Your task to perform on an android device: search for starred emails in the gmail app Image 0: 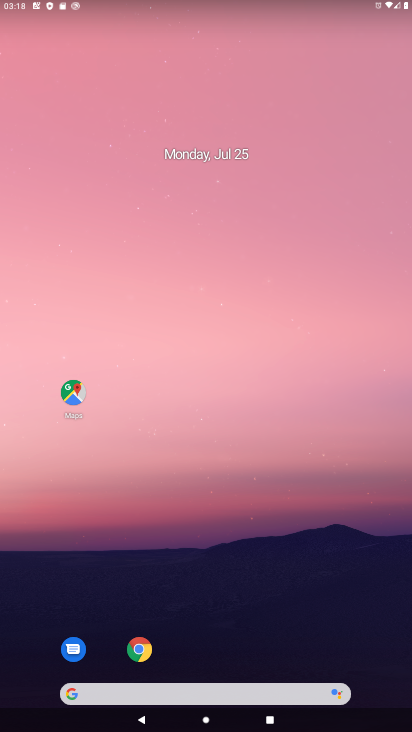
Step 0: drag from (378, 692) to (334, 186)
Your task to perform on an android device: search for starred emails in the gmail app Image 1: 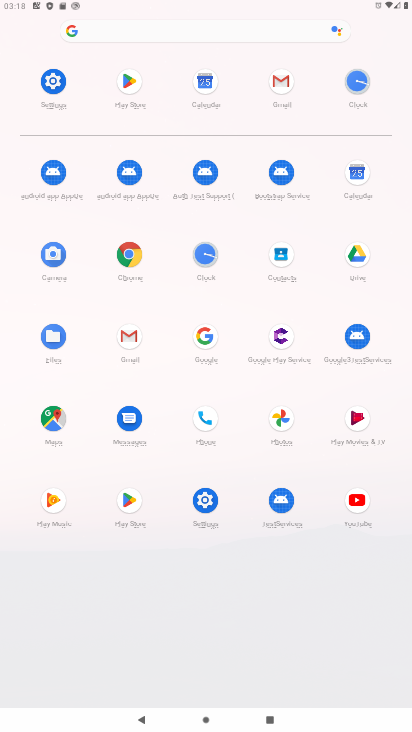
Step 1: click (128, 334)
Your task to perform on an android device: search for starred emails in the gmail app Image 2: 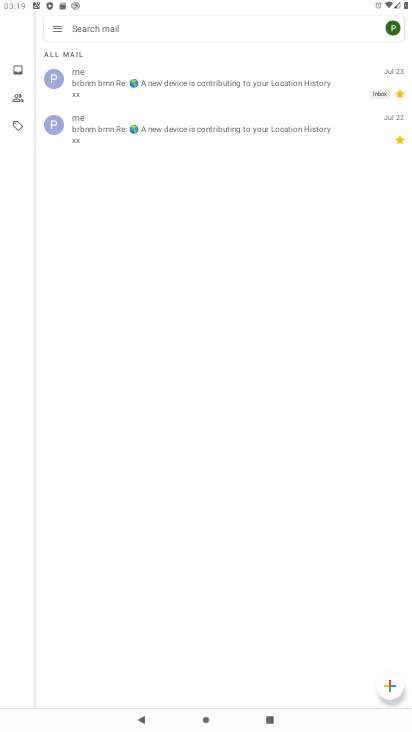
Step 2: click (55, 28)
Your task to perform on an android device: search for starred emails in the gmail app Image 3: 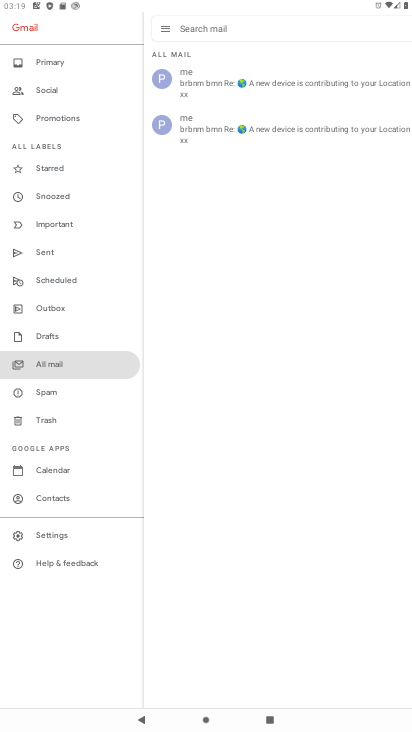
Step 3: click (43, 163)
Your task to perform on an android device: search for starred emails in the gmail app Image 4: 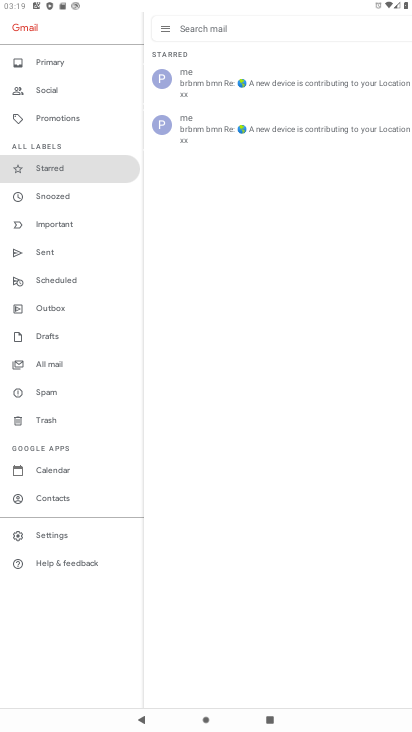
Step 4: task complete